Your task to perform on an android device: Open notification settings Image 0: 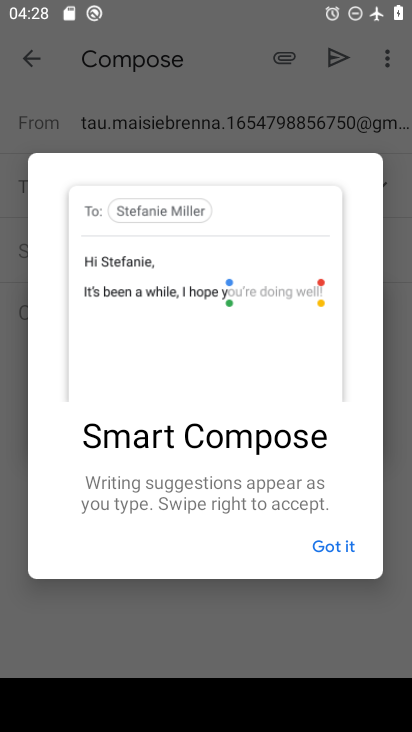
Step 0: press home button
Your task to perform on an android device: Open notification settings Image 1: 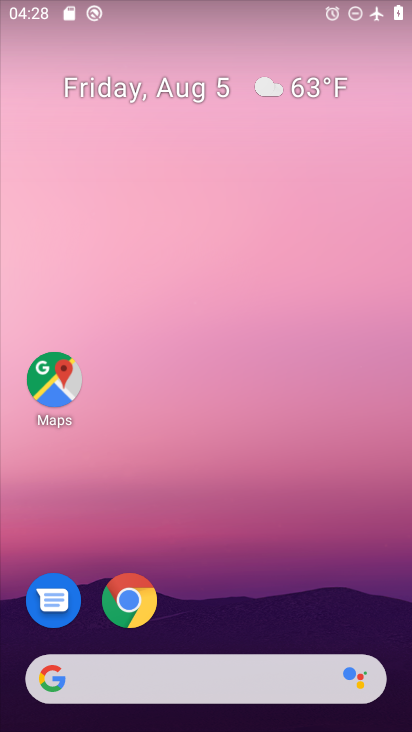
Step 1: drag from (224, 675) to (207, 9)
Your task to perform on an android device: Open notification settings Image 2: 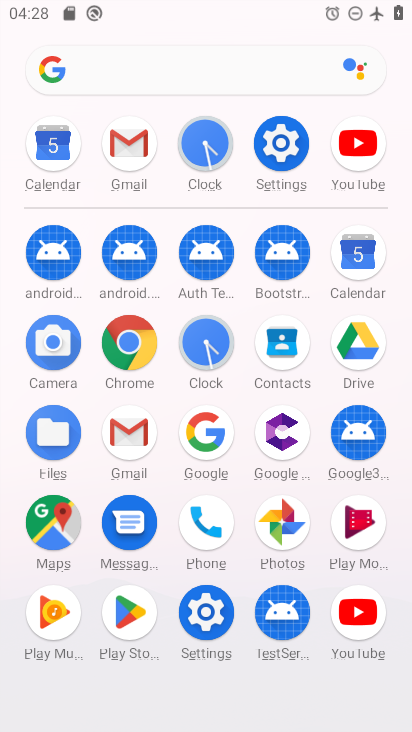
Step 2: click (280, 131)
Your task to perform on an android device: Open notification settings Image 3: 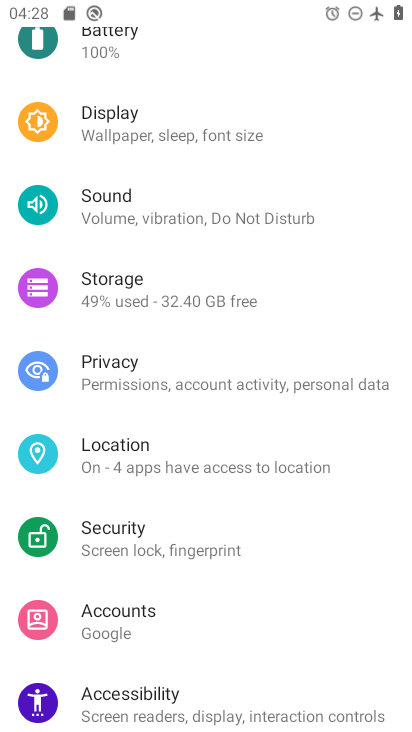
Step 3: drag from (177, 193) to (149, 683)
Your task to perform on an android device: Open notification settings Image 4: 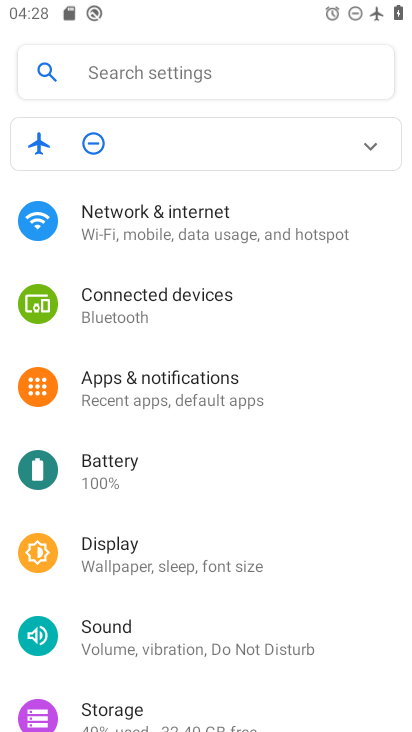
Step 4: click (148, 381)
Your task to perform on an android device: Open notification settings Image 5: 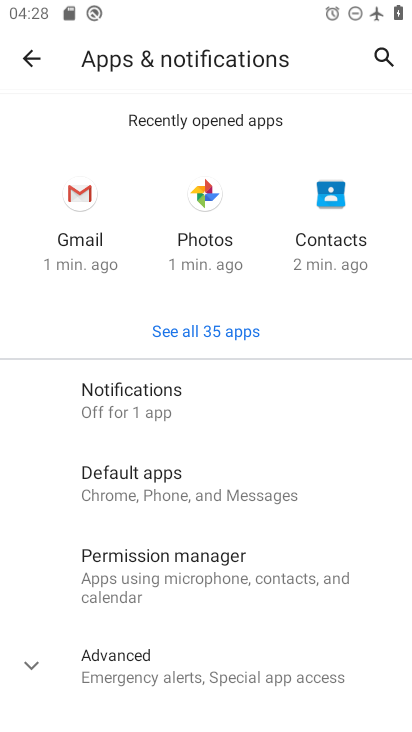
Step 5: click (144, 402)
Your task to perform on an android device: Open notification settings Image 6: 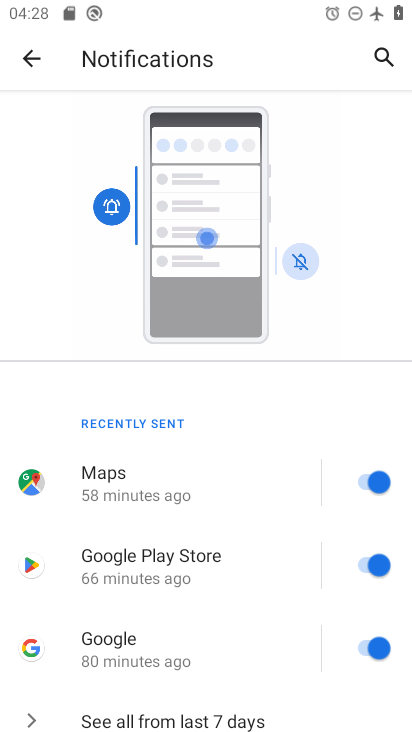
Step 6: task complete